Your task to perform on an android device: toggle show notifications on the lock screen Image 0: 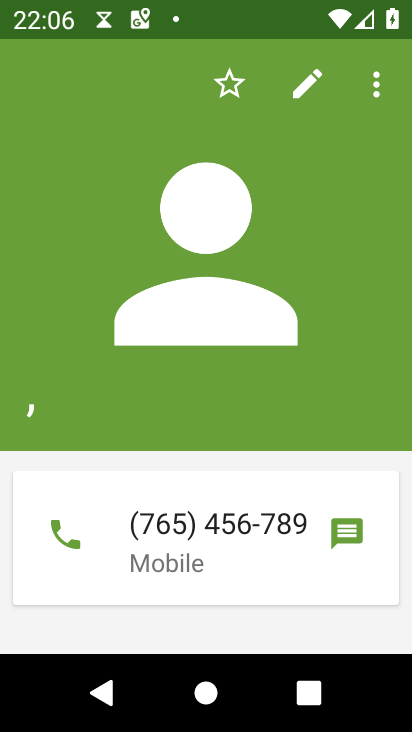
Step 0: press home button
Your task to perform on an android device: toggle show notifications on the lock screen Image 1: 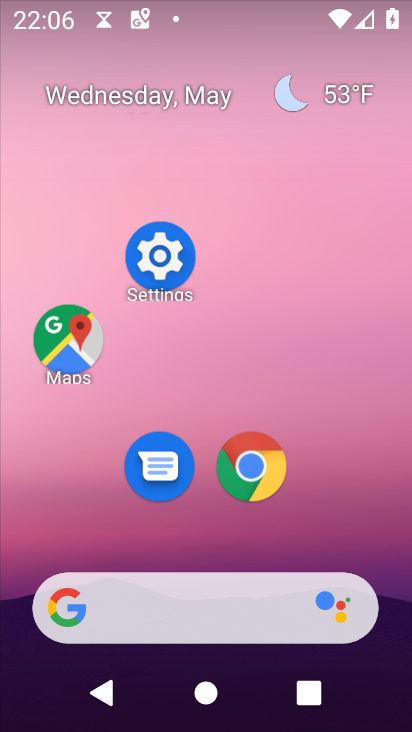
Step 1: drag from (194, 485) to (238, 242)
Your task to perform on an android device: toggle show notifications on the lock screen Image 2: 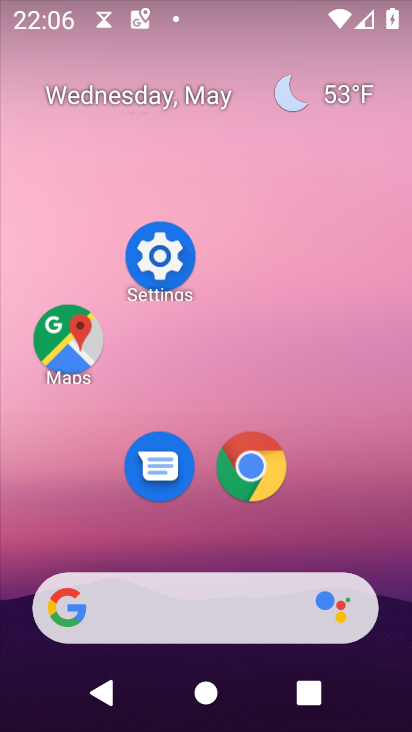
Step 2: drag from (221, 477) to (289, 110)
Your task to perform on an android device: toggle show notifications on the lock screen Image 3: 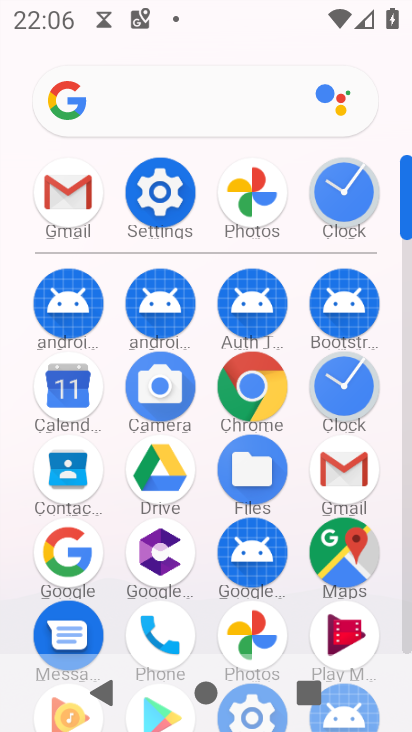
Step 3: click (144, 211)
Your task to perform on an android device: toggle show notifications on the lock screen Image 4: 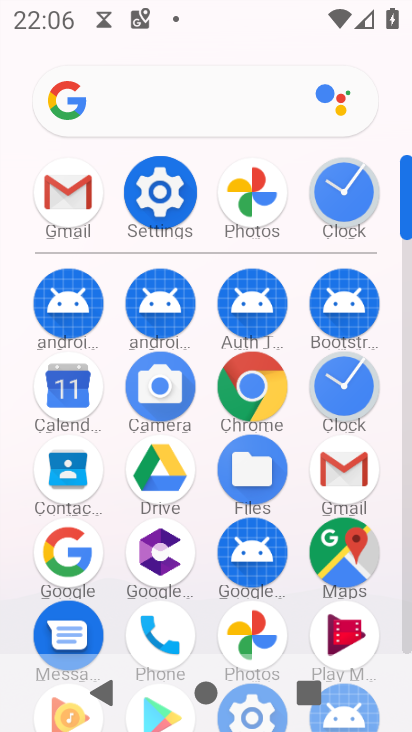
Step 4: click (142, 209)
Your task to perform on an android device: toggle show notifications on the lock screen Image 5: 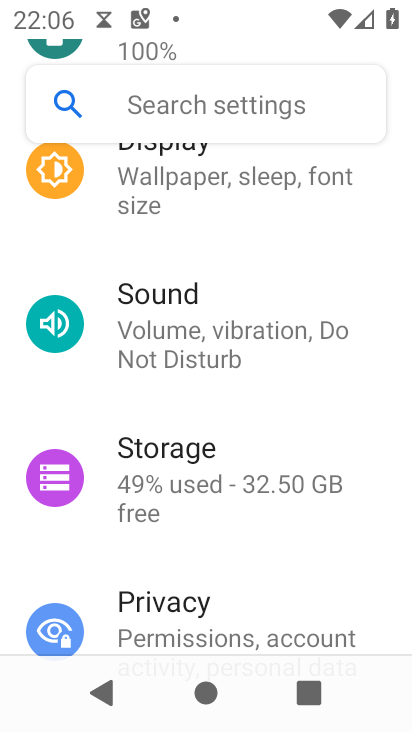
Step 5: drag from (221, 348) to (242, 477)
Your task to perform on an android device: toggle show notifications on the lock screen Image 6: 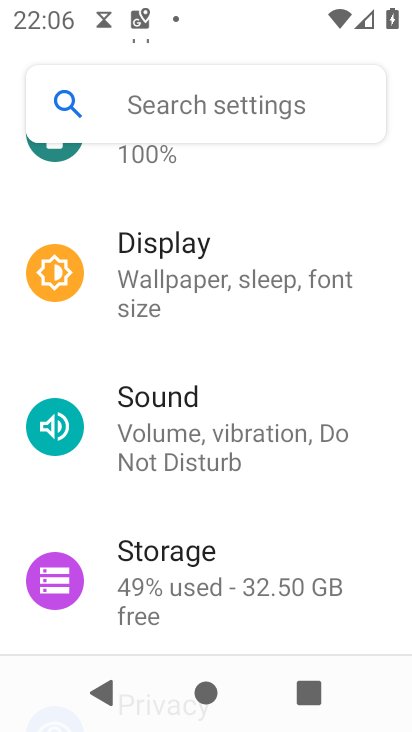
Step 6: drag from (178, 254) to (241, 575)
Your task to perform on an android device: toggle show notifications on the lock screen Image 7: 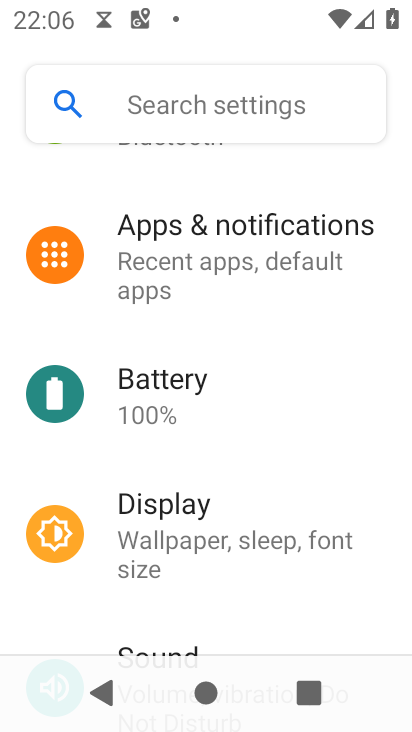
Step 7: click (217, 226)
Your task to perform on an android device: toggle show notifications on the lock screen Image 8: 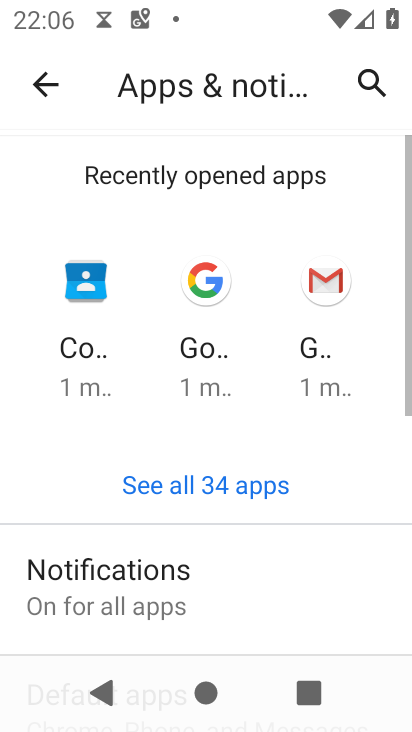
Step 8: click (178, 573)
Your task to perform on an android device: toggle show notifications on the lock screen Image 9: 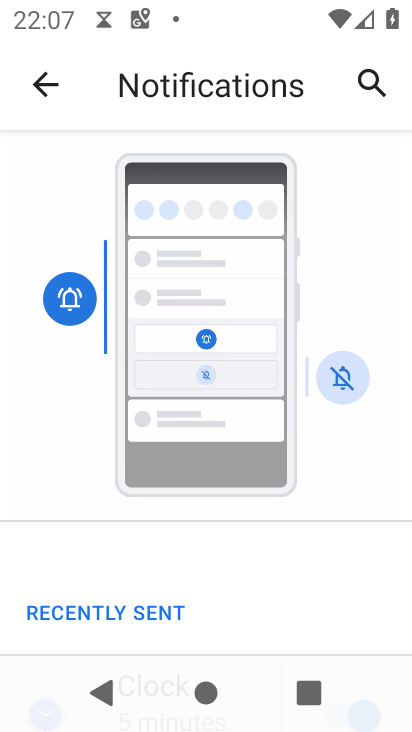
Step 9: drag from (255, 582) to (267, 399)
Your task to perform on an android device: toggle show notifications on the lock screen Image 10: 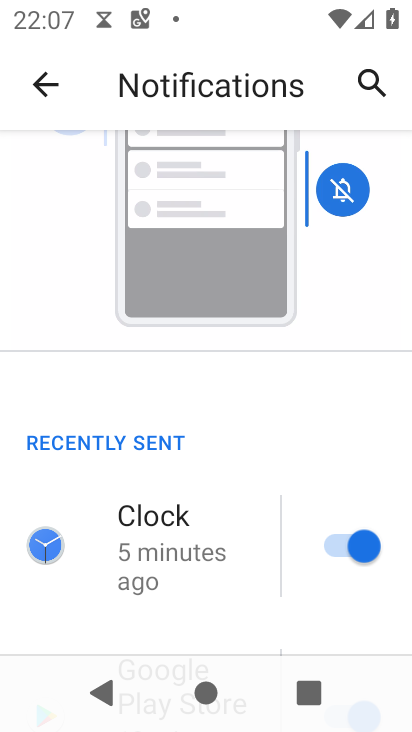
Step 10: drag from (188, 571) to (255, 162)
Your task to perform on an android device: toggle show notifications on the lock screen Image 11: 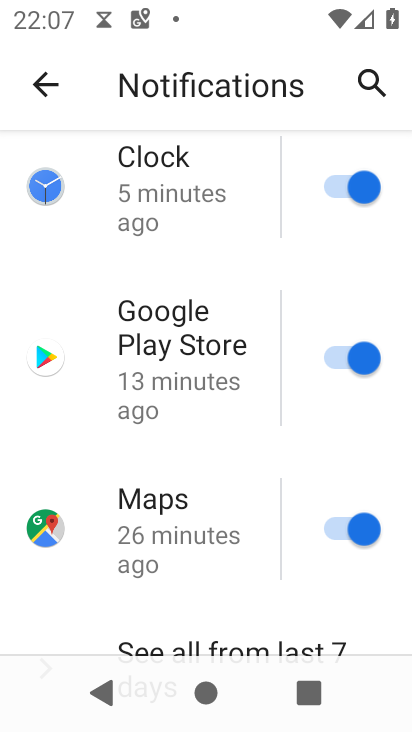
Step 11: drag from (236, 505) to (281, 217)
Your task to perform on an android device: toggle show notifications on the lock screen Image 12: 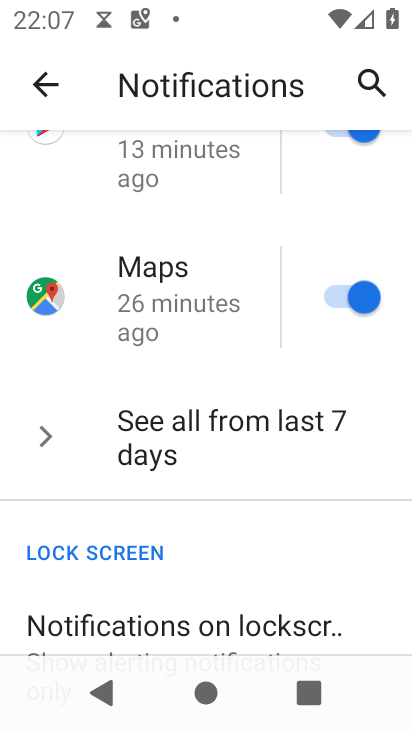
Step 12: click (198, 627)
Your task to perform on an android device: toggle show notifications on the lock screen Image 13: 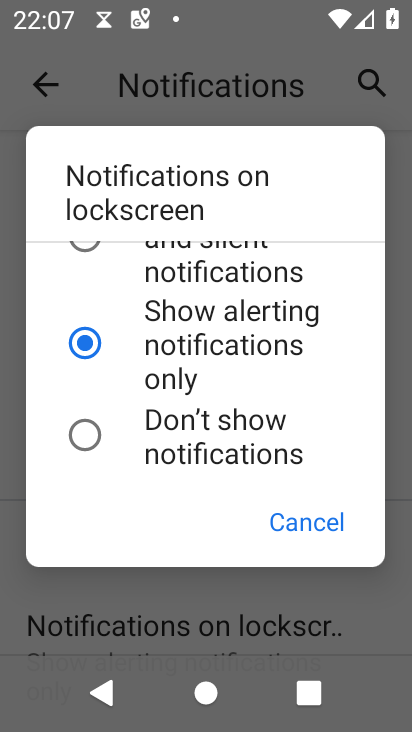
Step 13: task complete